Your task to perform on an android device: check the backup settings in the google photos Image 0: 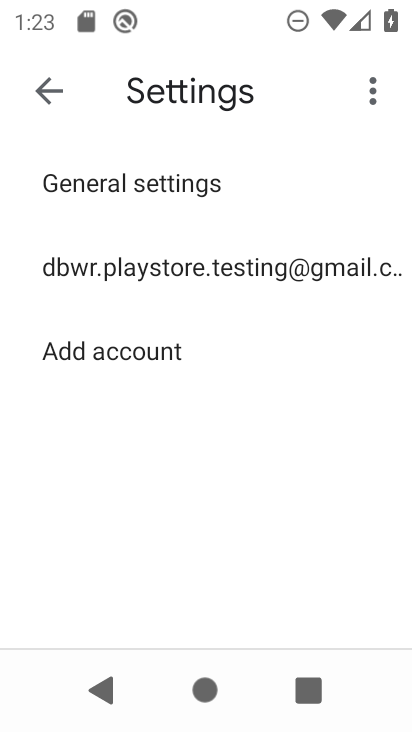
Step 0: press home button
Your task to perform on an android device: check the backup settings in the google photos Image 1: 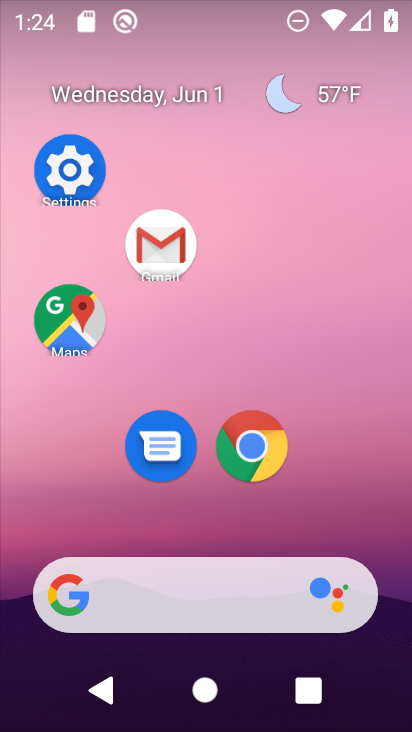
Step 1: drag from (296, 410) to (264, 43)
Your task to perform on an android device: check the backup settings in the google photos Image 2: 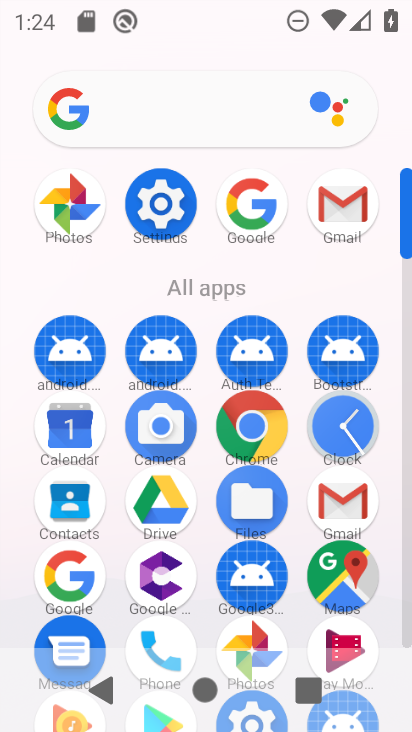
Step 2: drag from (75, 219) to (170, 202)
Your task to perform on an android device: check the backup settings in the google photos Image 3: 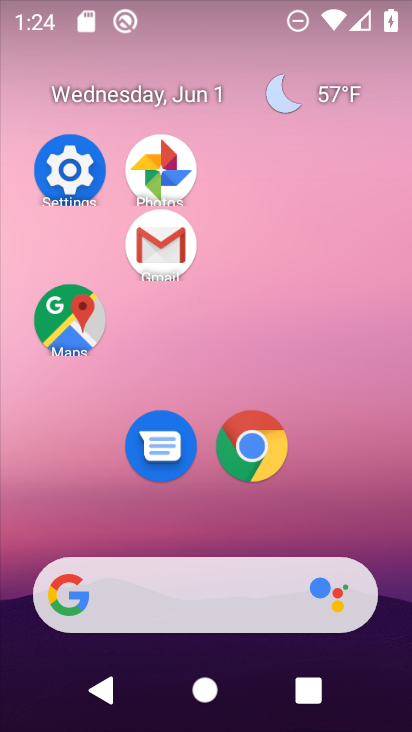
Step 3: click (179, 171)
Your task to perform on an android device: check the backup settings in the google photos Image 4: 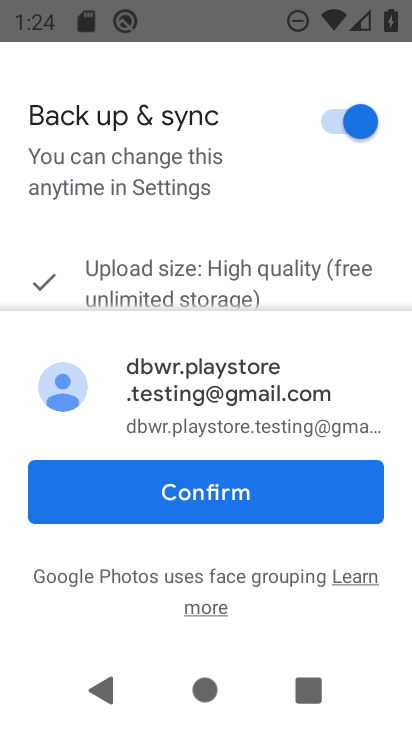
Step 4: click (229, 494)
Your task to perform on an android device: check the backup settings in the google photos Image 5: 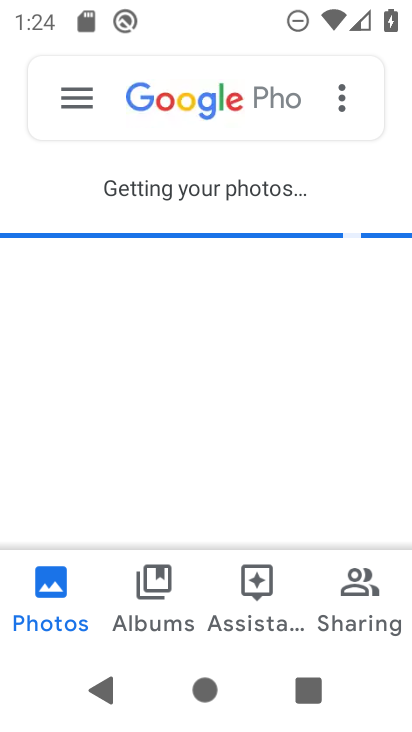
Step 5: click (52, 87)
Your task to perform on an android device: check the backup settings in the google photos Image 6: 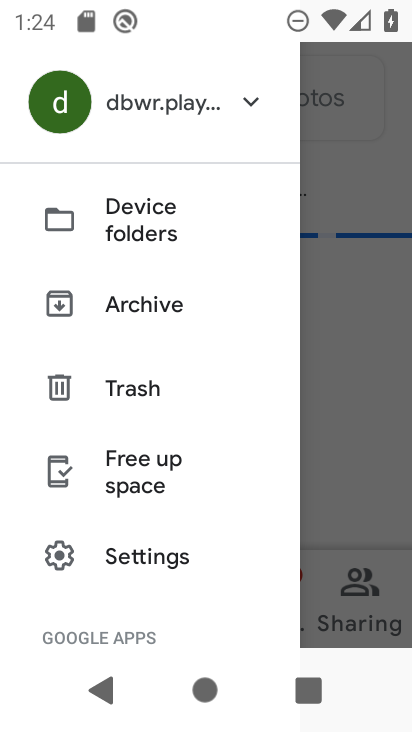
Step 6: click (201, 564)
Your task to perform on an android device: check the backup settings in the google photos Image 7: 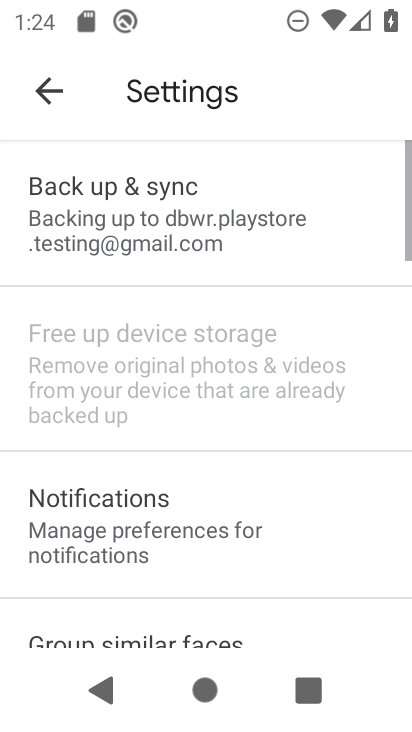
Step 7: click (154, 197)
Your task to perform on an android device: check the backup settings in the google photos Image 8: 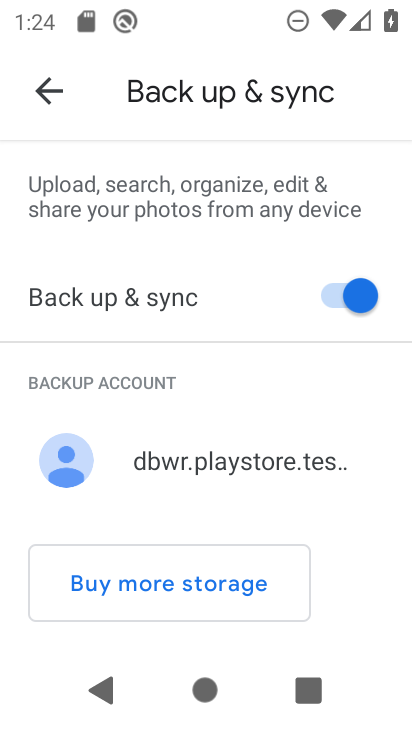
Step 8: task complete